Your task to perform on an android device: move an email to a new category in the gmail app Image 0: 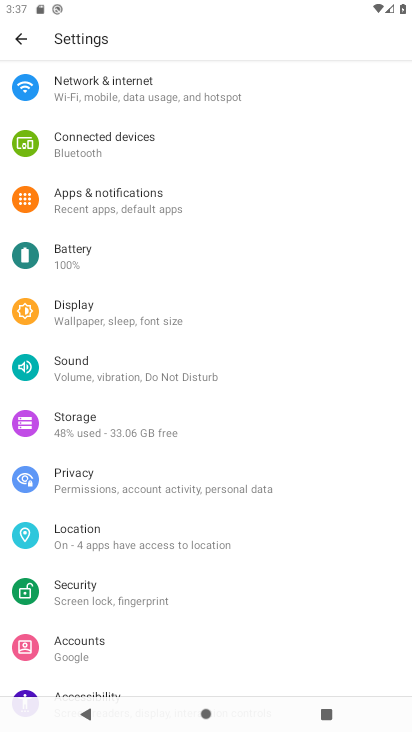
Step 0: press home button
Your task to perform on an android device: move an email to a new category in the gmail app Image 1: 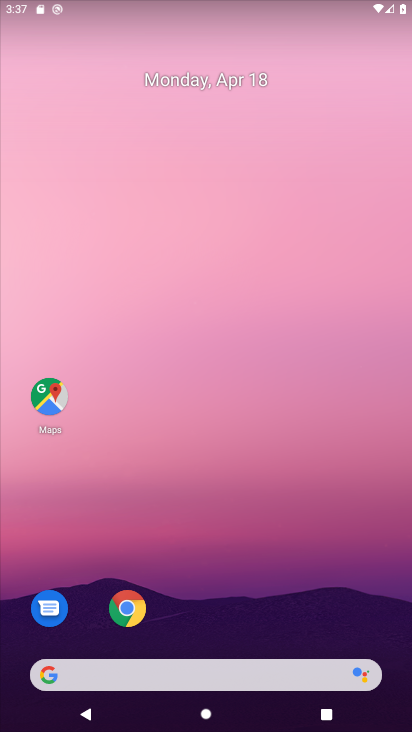
Step 1: drag from (352, 339) to (330, 210)
Your task to perform on an android device: move an email to a new category in the gmail app Image 2: 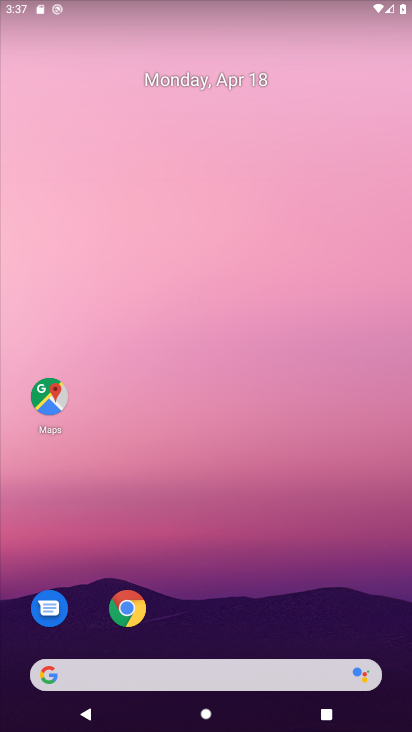
Step 2: click (332, 67)
Your task to perform on an android device: move an email to a new category in the gmail app Image 3: 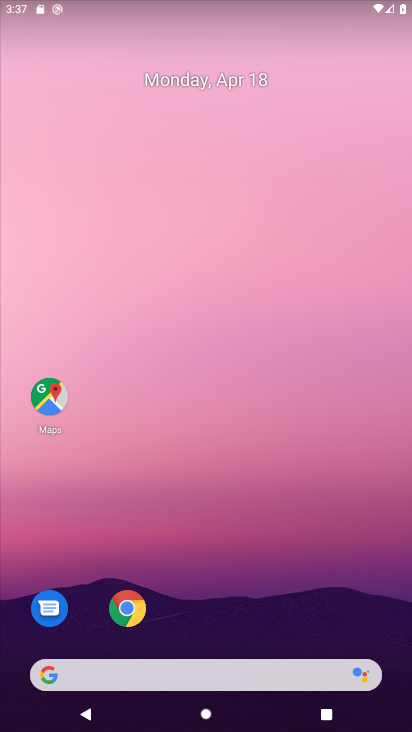
Step 3: drag from (366, 604) to (302, 24)
Your task to perform on an android device: move an email to a new category in the gmail app Image 4: 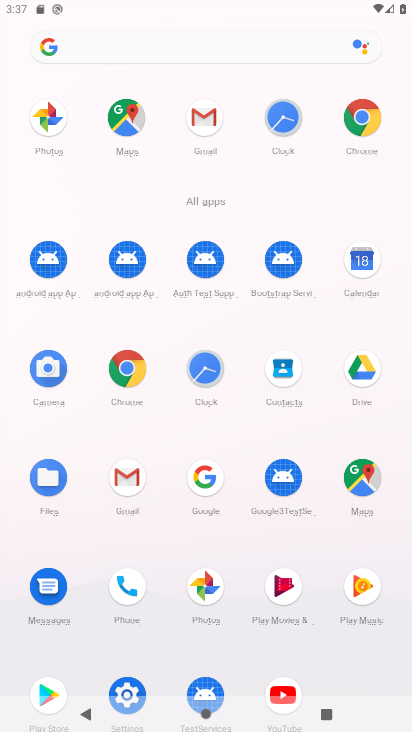
Step 4: click (131, 473)
Your task to perform on an android device: move an email to a new category in the gmail app Image 5: 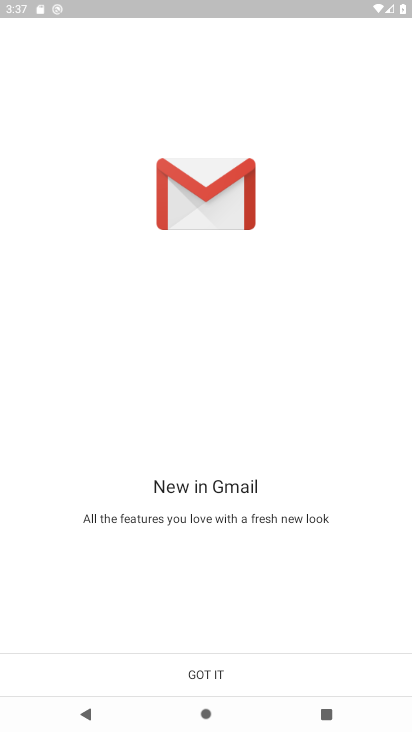
Step 5: click (199, 673)
Your task to perform on an android device: move an email to a new category in the gmail app Image 6: 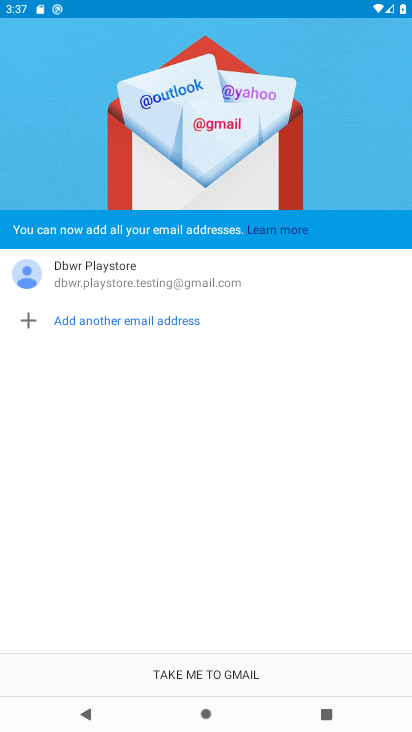
Step 6: click (221, 667)
Your task to perform on an android device: move an email to a new category in the gmail app Image 7: 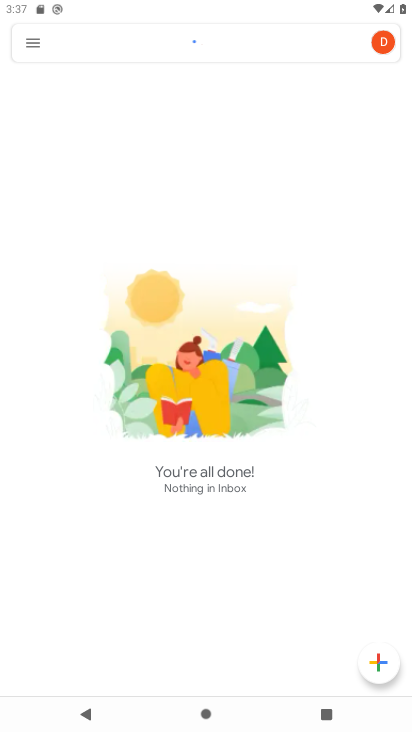
Step 7: click (28, 39)
Your task to perform on an android device: move an email to a new category in the gmail app Image 8: 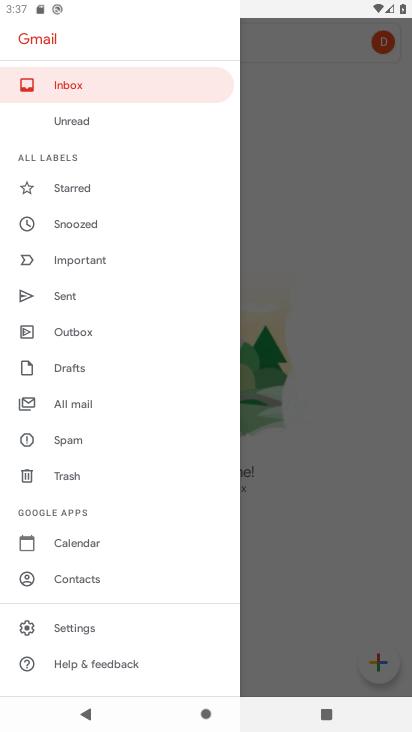
Step 8: click (60, 86)
Your task to perform on an android device: move an email to a new category in the gmail app Image 9: 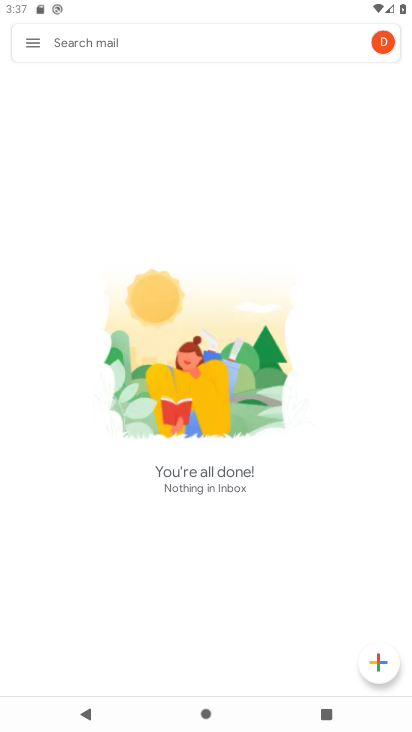
Step 9: task complete